Your task to perform on an android device: open app "Booking.com: Hotels and more" Image 0: 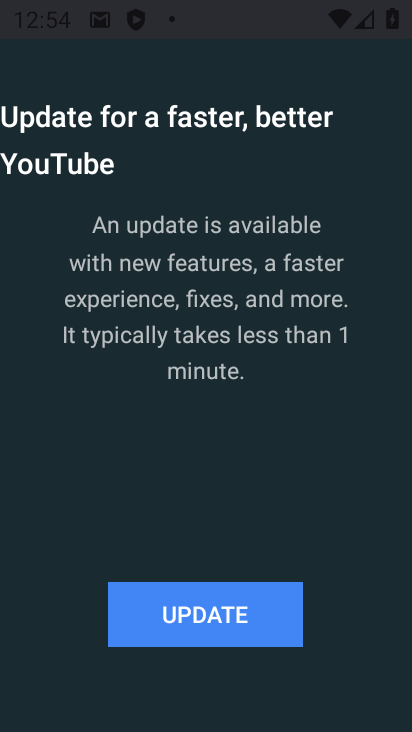
Step 0: press back button
Your task to perform on an android device: open app "Booking.com: Hotels and more" Image 1: 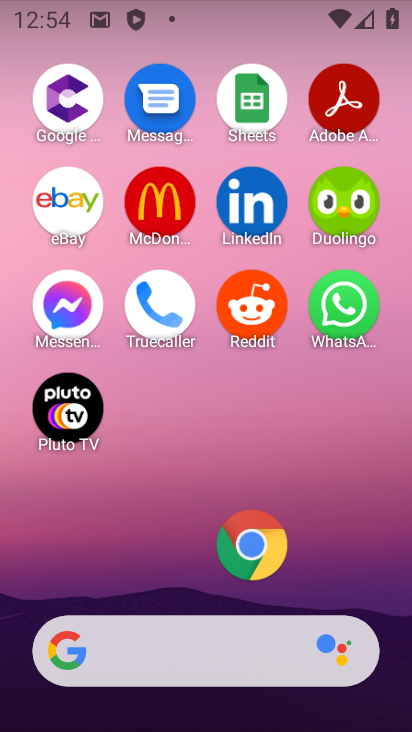
Step 1: drag from (79, 569) to (261, 16)
Your task to perform on an android device: open app "Booking.com: Hotels and more" Image 2: 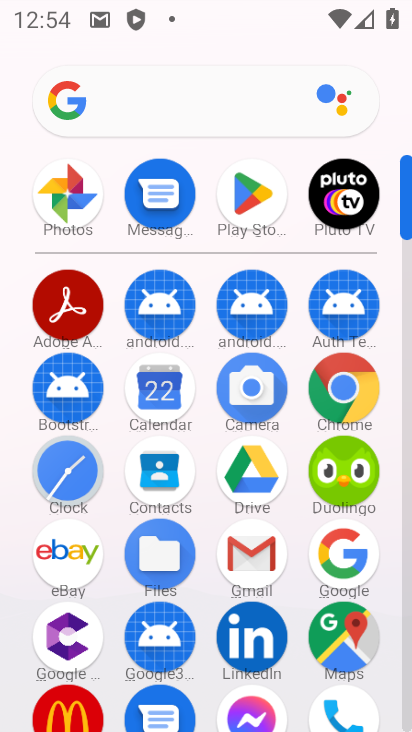
Step 2: click (254, 188)
Your task to perform on an android device: open app "Booking.com: Hotels and more" Image 3: 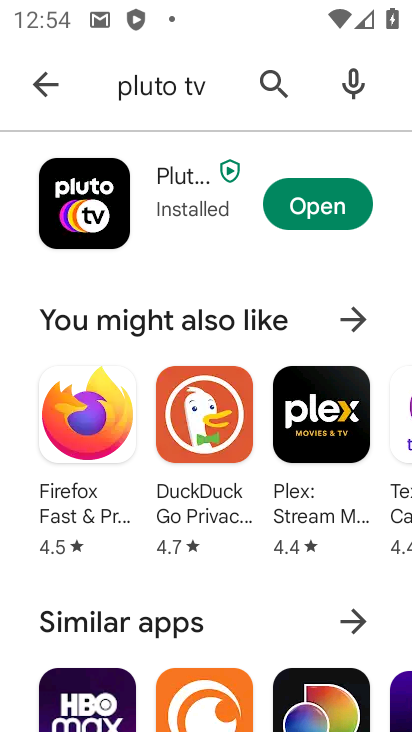
Step 3: click (259, 69)
Your task to perform on an android device: open app "Booking.com: Hotels and more" Image 4: 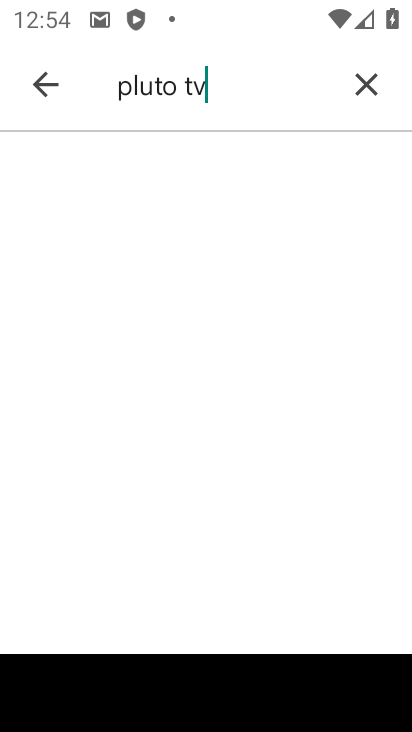
Step 4: click (369, 85)
Your task to perform on an android device: open app "Booking.com: Hotels and more" Image 5: 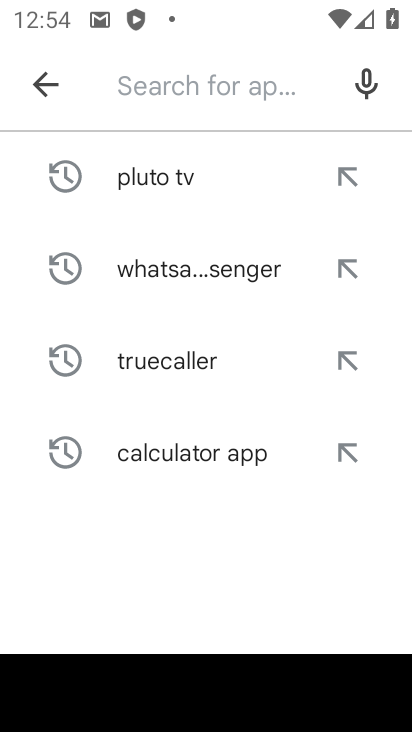
Step 5: click (133, 88)
Your task to perform on an android device: open app "Booking.com: Hotels and more" Image 6: 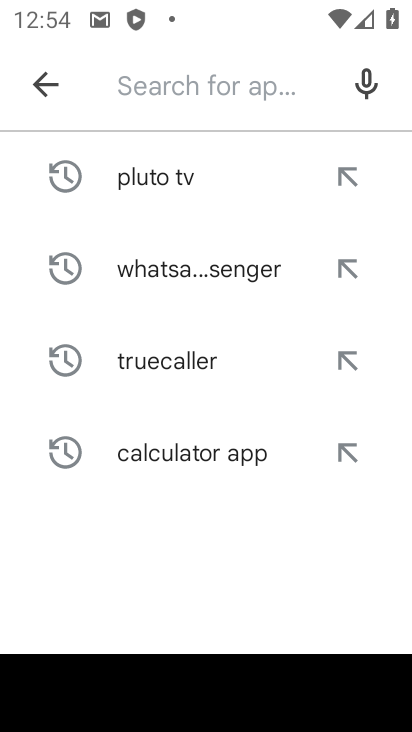
Step 6: type "Booking.com"
Your task to perform on an android device: open app "Booking.com: Hotels and more" Image 7: 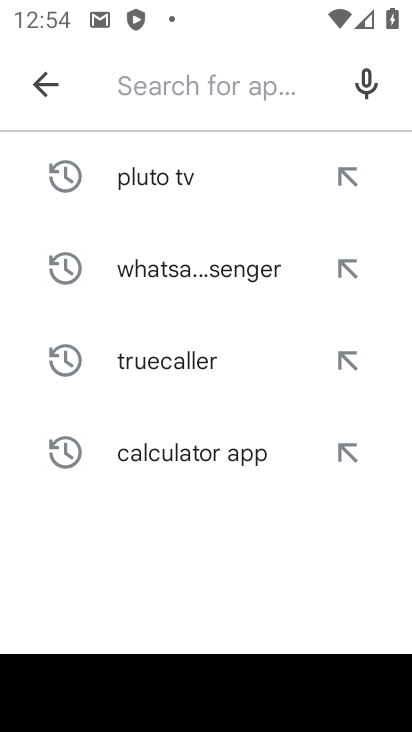
Step 7: click (264, 566)
Your task to perform on an android device: open app "Booking.com: Hotels and more" Image 8: 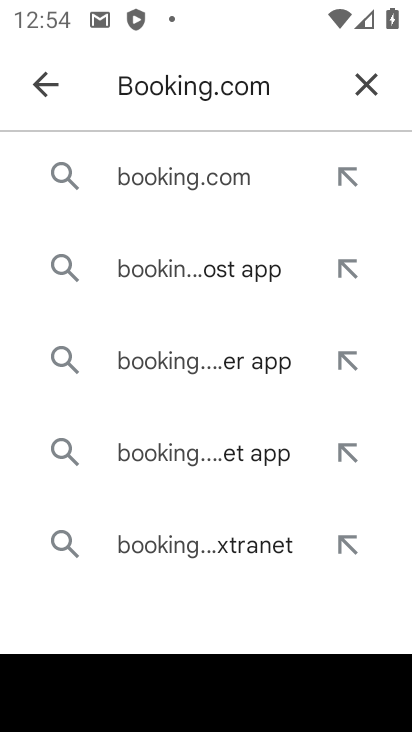
Step 8: click (137, 171)
Your task to perform on an android device: open app "Booking.com: Hotels and more" Image 9: 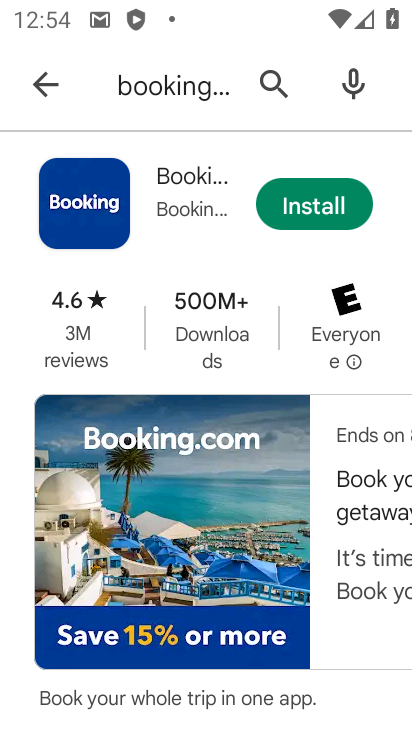
Step 9: task complete